Your task to perform on an android device: visit the assistant section in the google photos Image 0: 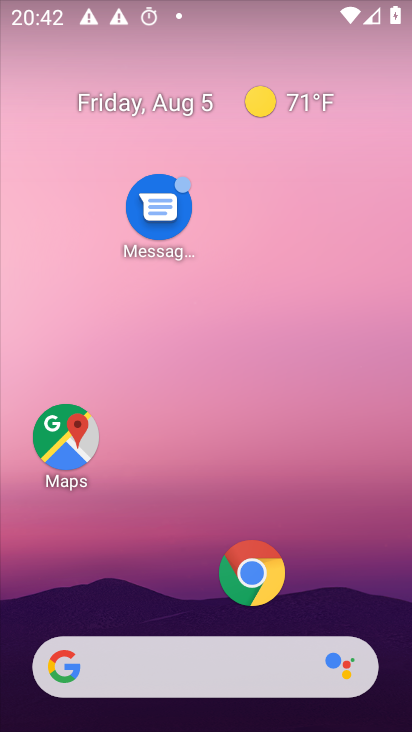
Step 0: press home button
Your task to perform on an android device: visit the assistant section in the google photos Image 1: 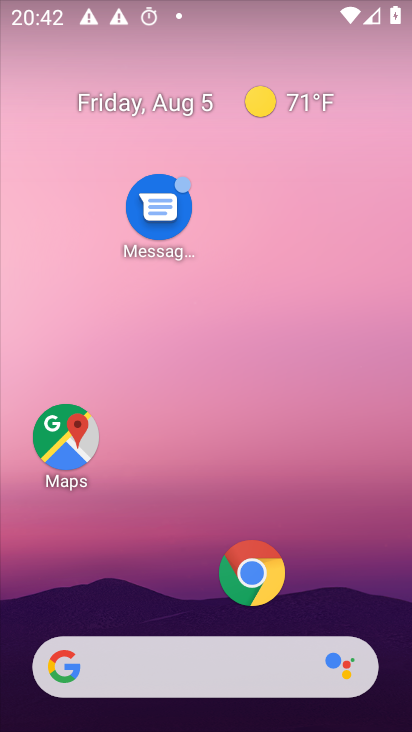
Step 1: drag from (189, 610) to (226, 0)
Your task to perform on an android device: visit the assistant section in the google photos Image 2: 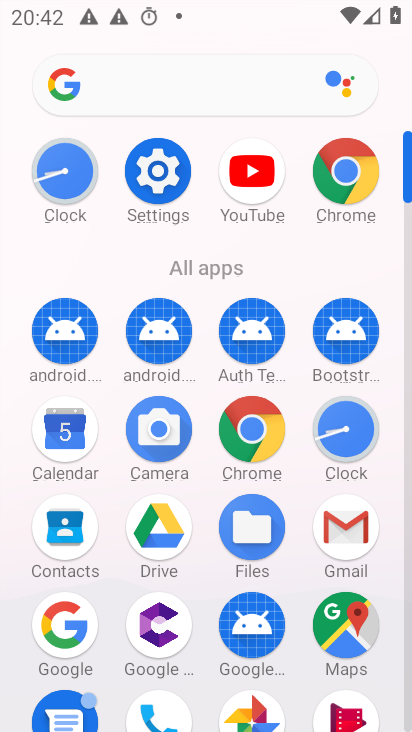
Step 2: drag from (206, 575) to (211, 102)
Your task to perform on an android device: visit the assistant section in the google photos Image 3: 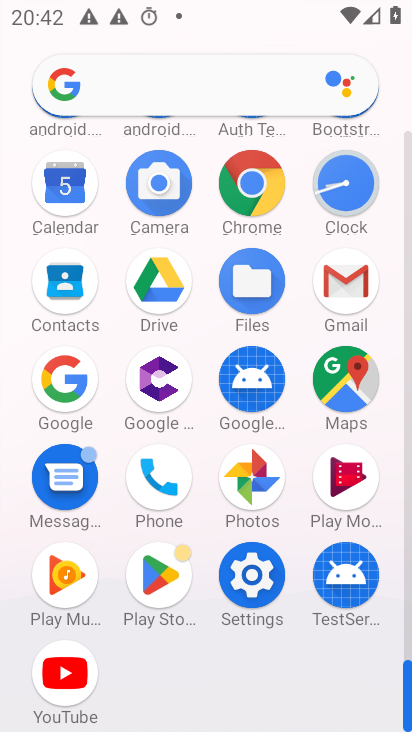
Step 3: click (249, 473)
Your task to perform on an android device: visit the assistant section in the google photos Image 4: 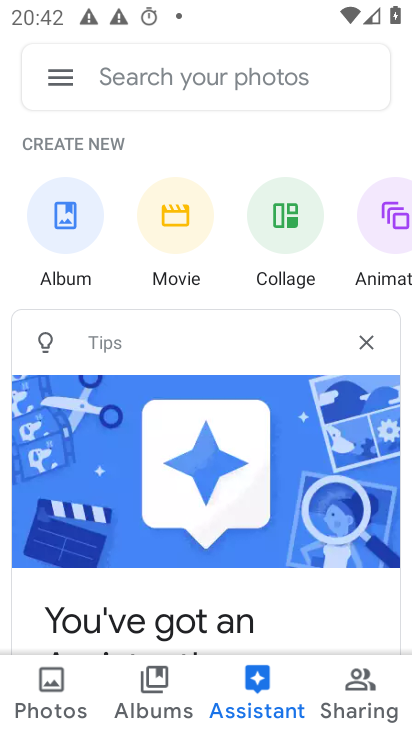
Step 4: click (255, 672)
Your task to perform on an android device: visit the assistant section in the google photos Image 5: 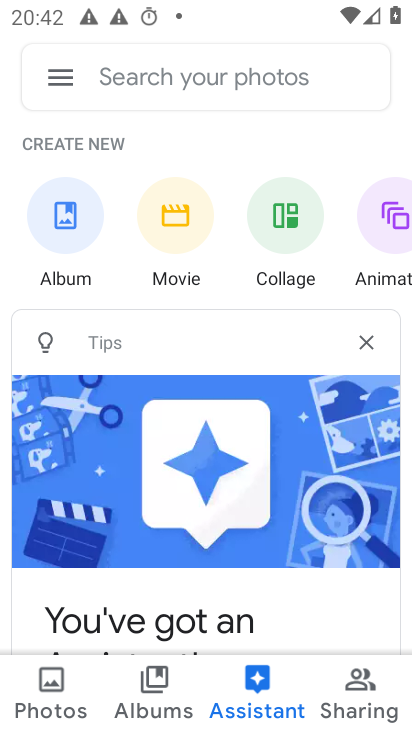
Step 5: task complete